Your task to perform on an android device: Check the weather Image 0: 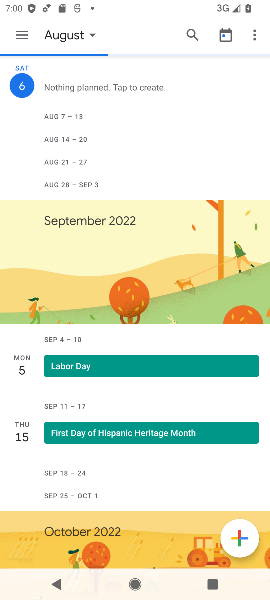
Step 0: press home button
Your task to perform on an android device: Check the weather Image 1: 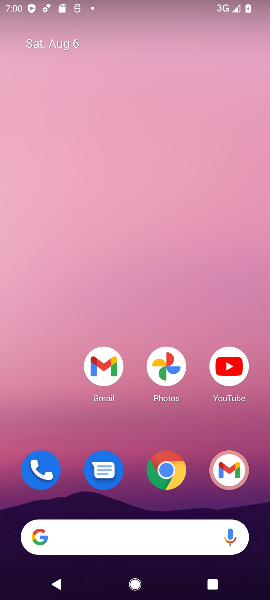
Step 1: drag from (208, 480) to (140, 111)
Your task to perform on an android device: Check the weather Image 2: 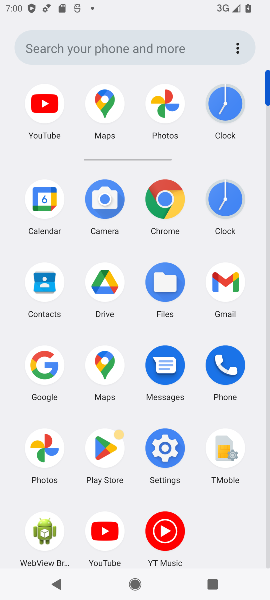
Step 2: click (172, 192)
Your task to perform on an android device: Check the weather Image 3: 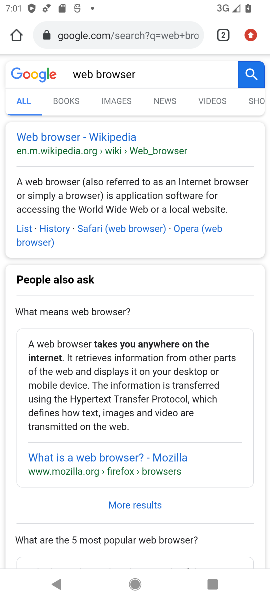
Step 3: click (174, 34)
Your task to perform on an android device: Check the weather Image 4: 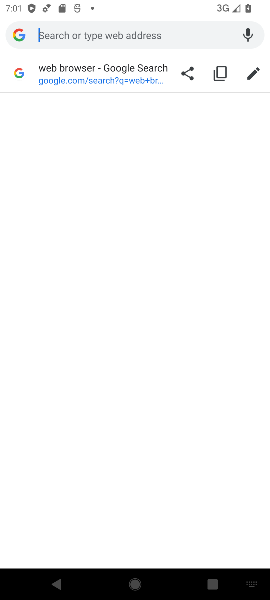
Step 4: type "Check the weather"
Your task to perform on an android device: Check the weather Image 5: 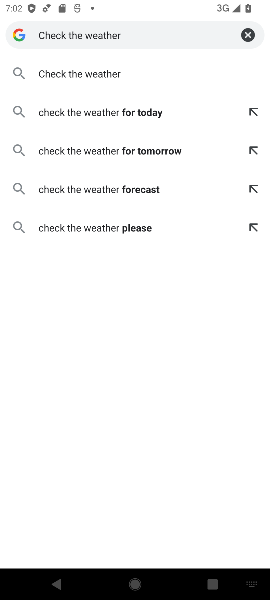
Step 5: click (62, 71)
Your task to perform on an android device: Check the weather Image 6: 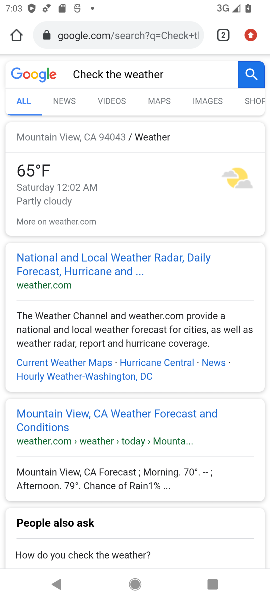
Step 6: task complete